Your task to perform on an android device: open chrome and create a bookmark for the current page Image 0: 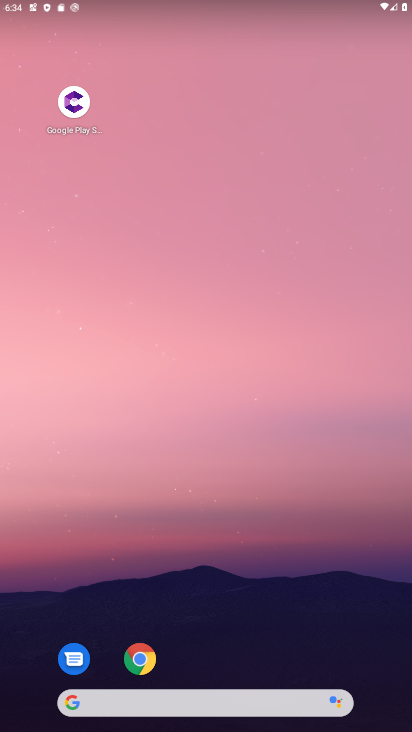
Step 0: drag from (378, 696) to (186, 125)
Your task to perform on an android device: open chrome and create a bookmark for the current page Image 1: 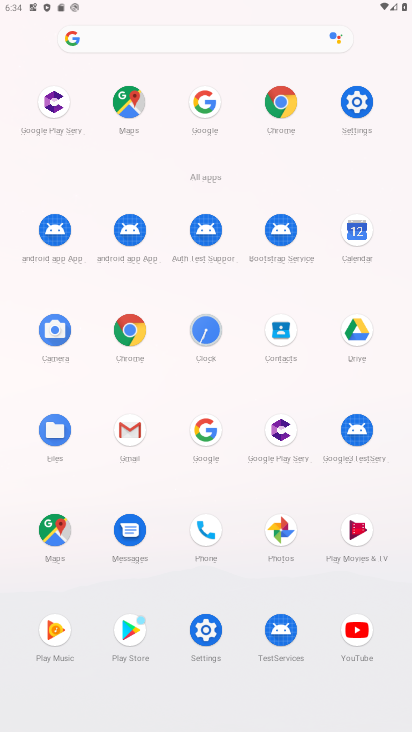
Step 1: click (122, 329)
Your task to perform on an android device: open chrome and create a bookmark for the current page Image 2: 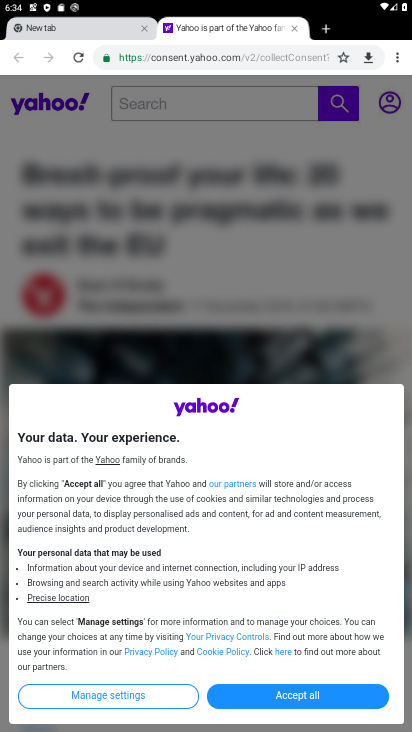
Step 2: press back button
Your task to perform on an android device: open chrome and create a bookmark for the current page Image 3: 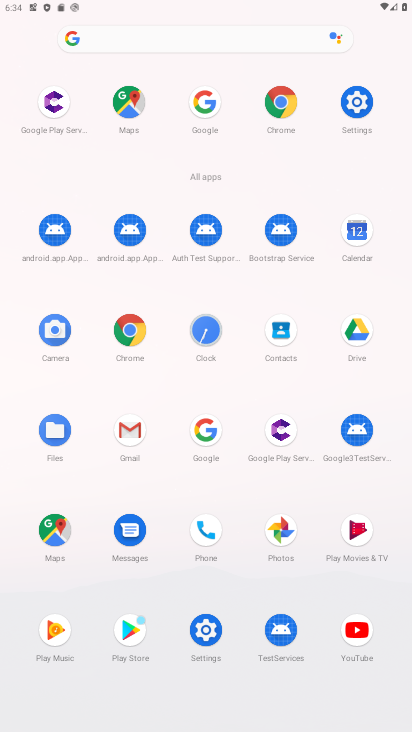
Step 3: click (277, 99)
Your task to perform on an android device: open chrome and create a bookmark for the current page Image 4: 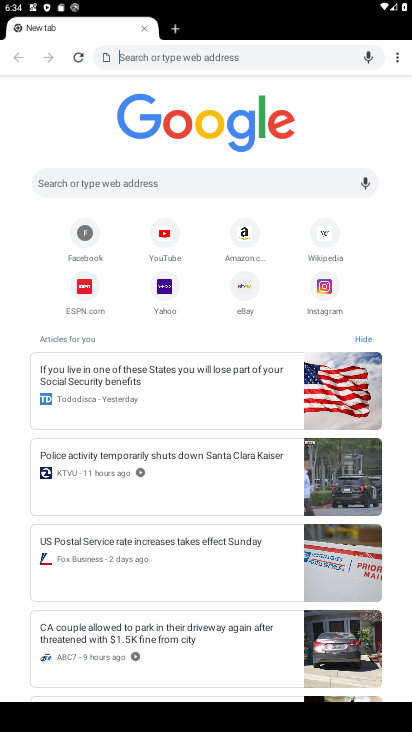
Step 4: click (393, 56)
Your task to perform on an android device: open chrome and create a bookmark for the current page Image 5: 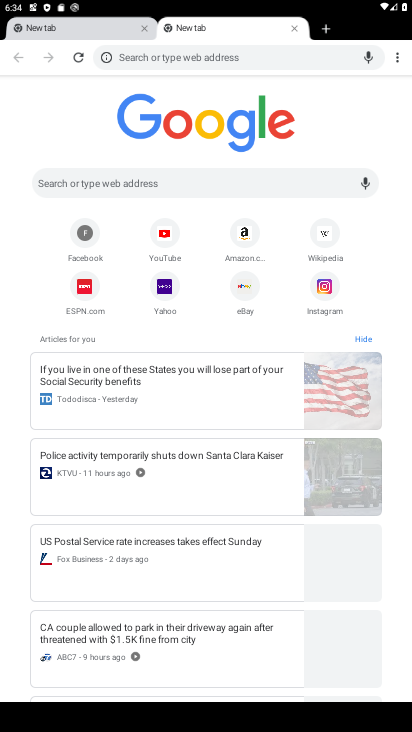
Step 5: click (393, 56)
Your task to perform on an android device: open chrome and create a bookmark for the current page Image 6: 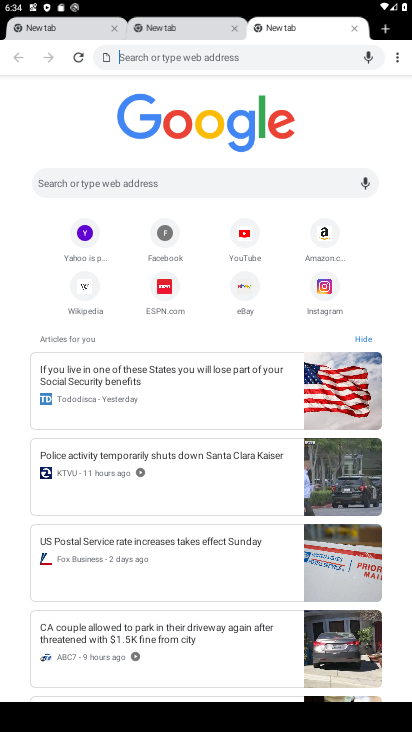
Step 6: click (393, 58)
Your task to perform on an android device: open chrome and create a bookmark for the current page Image 7: 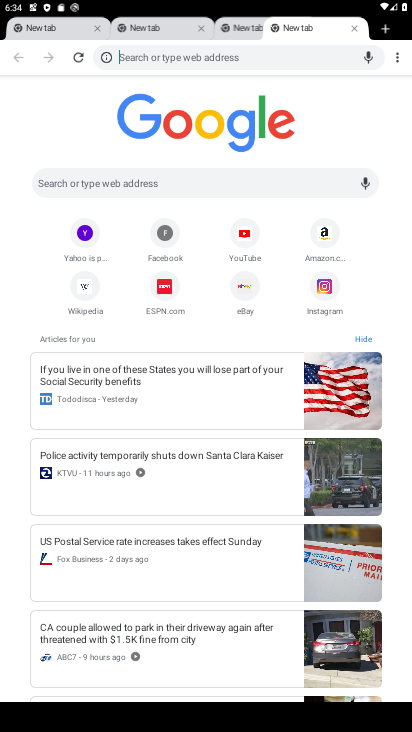
Step 7: click (397, 58)
Your task to perform on an android device: open chrome and create a bookmark for the current page Image 8: 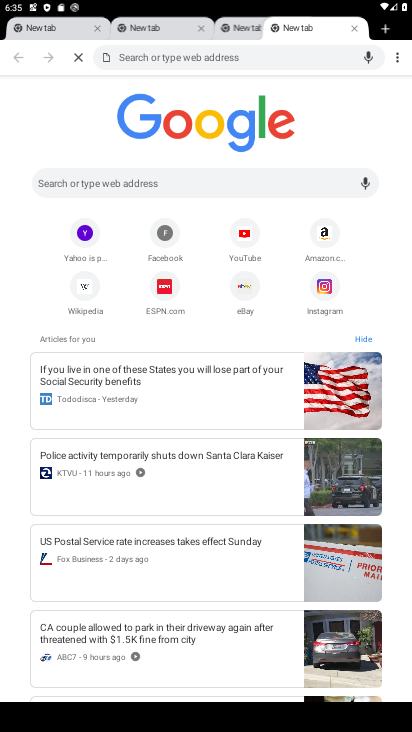
Step 8: click (397, 58)
Your task to perform on an android device: open chrome and create a bookmark for the current page Image 9: 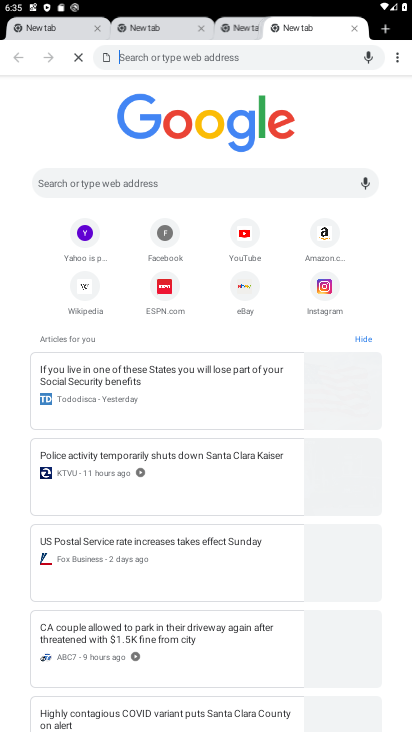
Step 9: click (397, 58)
Your task to perform on an android device: open chrome and create a bookmark for the current page Image 10: 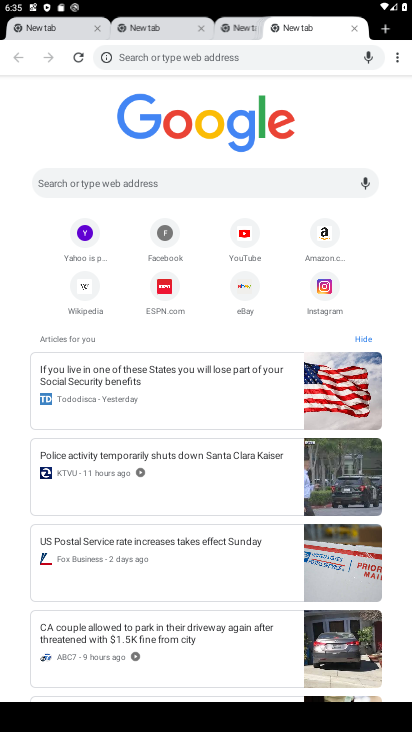
Step 10: click (397, 58)
Your task to perform on an android device: open chrome and create a bookmark for the current page Image 11: 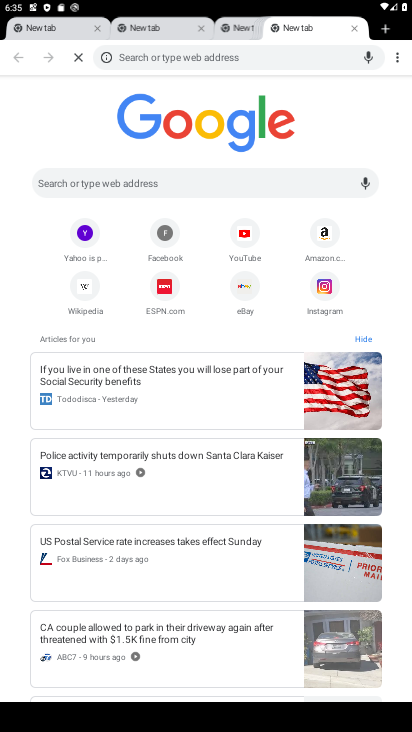
Step 11: click (398, 56)
Your task to perform on an android device: open chrome and create a bookmark for the current page Image 12: 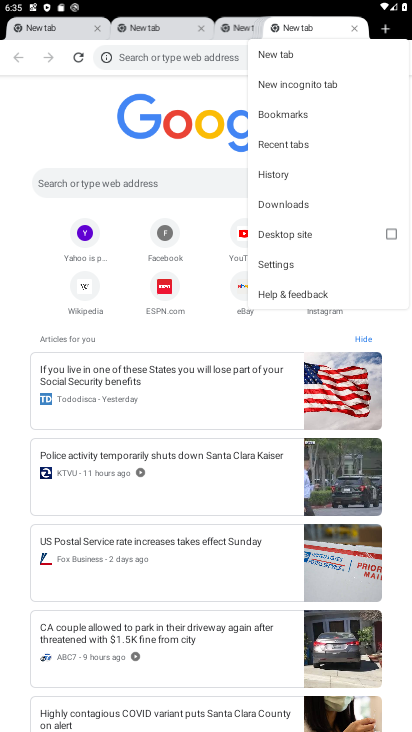
Step 12: click (190, 58)
Your task to perform on an android device: open chrome and create a bookmark for the current page Image 13: 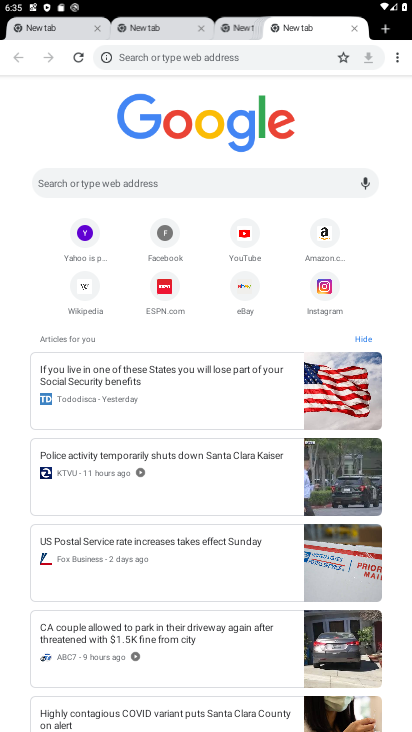
Step 13: click (341, 53)
Your task to perform on an android device: open chrome and create a bookmark for the current page Image 14: 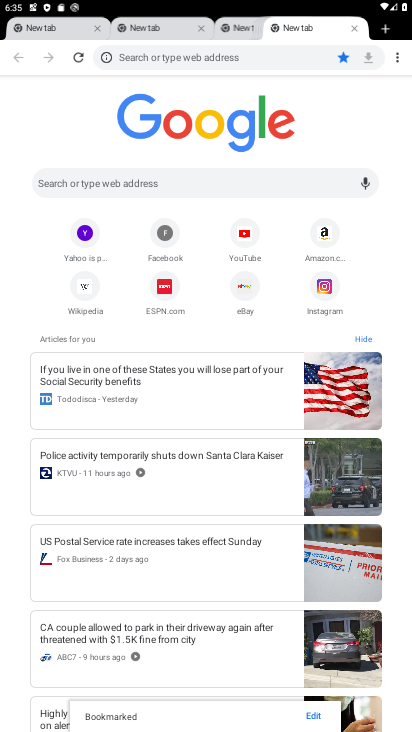
Step 14: task complete